Your task to perform on an android device: Go to display settings Image 0: 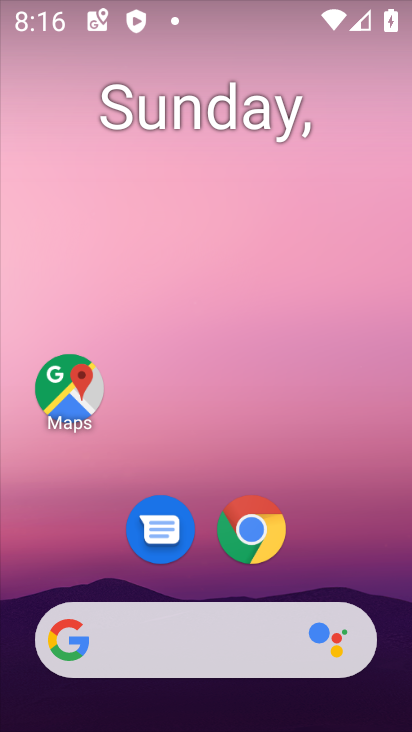
Step 0: drag from (361, 556) to (375, 176)
Your task to perform on an android device: Go to display settings Image 1: 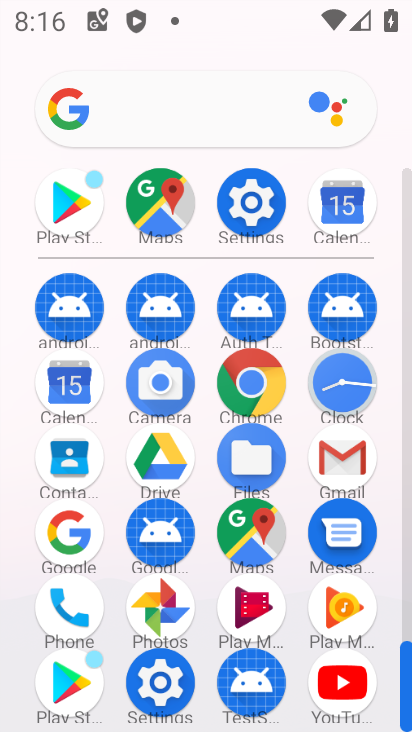
Step 1: click (161, 708)
Your task to perform on an android device: Go to display settings Image 2: 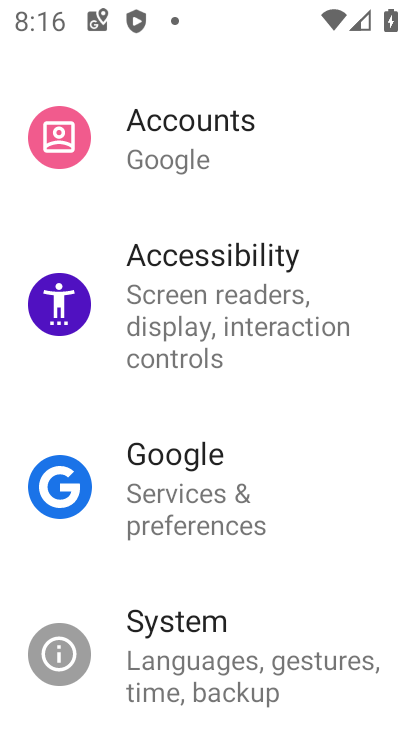
Step 2: drag from (294, 559) to (306, 180)
Your task to perform on an android device: Go to display settings Image 3: 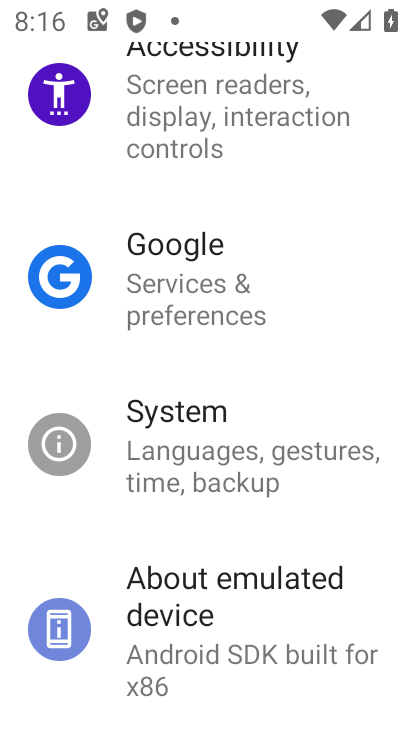
Step 3: drag from (357, 558) to (337, 232)
Your task to perform on an android device: Go to display settings Image 4: 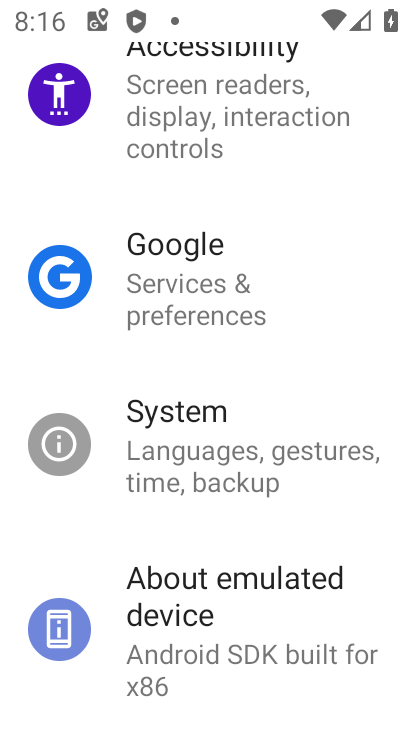
Step 4: drag from (337, 161) to (260, 579)
Your task to perform on an android device: Go to display settings Image 5: 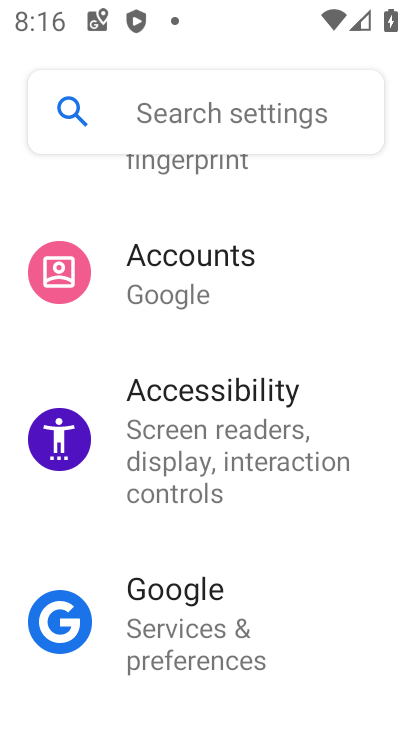
Step 5: drag from (316, 264) to (287, 568)
Your task to perform on an android device: Go to display settings Image 6: 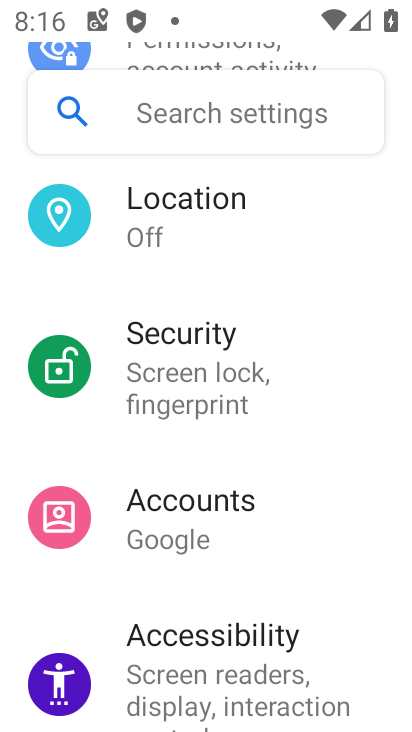
Step 6: drag from (329, 289) to (305, 537)
Your task to perform on an android device: Go to display settings Image 7: 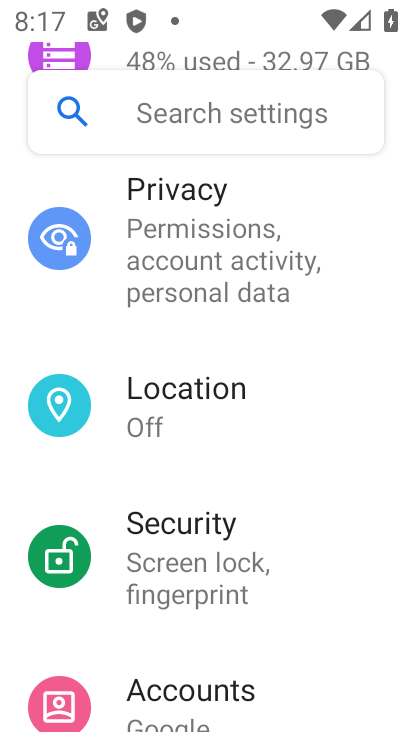
Step 7: drag from (320, 236) to (294, 595)
Your task to perform on an android device: Go to display settings Image 8: 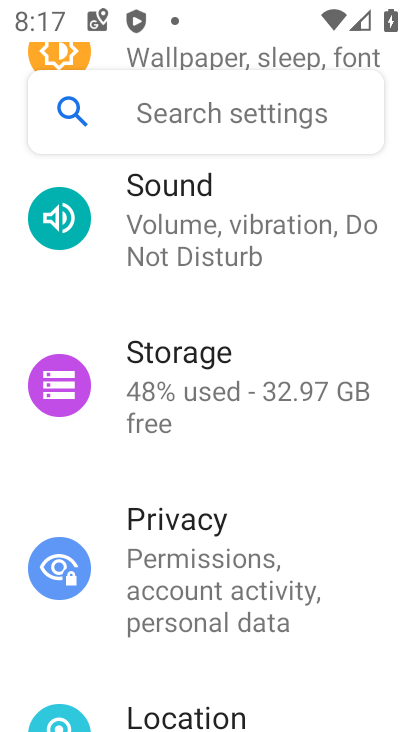
Step 8: drag from (329, 249) to (328, 638)
Your task to perform on an android device: Go to display settings Image 9: 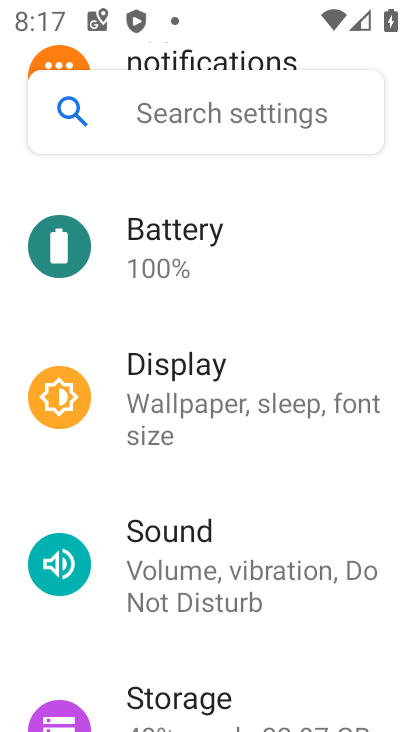
Step 9: drag from (334, 318) to (319, 547)
Your task to perform on an android device: Go to display settings Image 10: 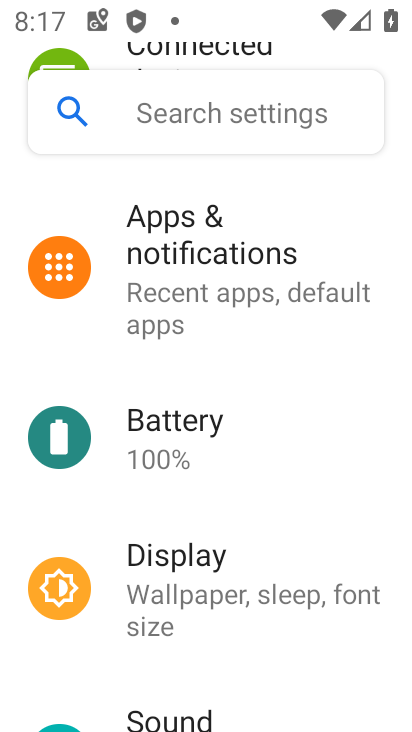
Step 10: click (237, 565)
Your task to perform on an android device: Go to display settings Image 11: 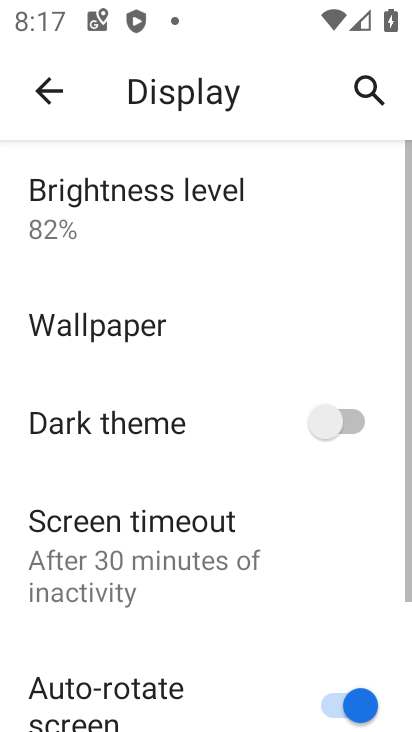
Step 11: task complete